Your task to perform on an android device: read, delete, or share a saved page in the chrome app Image 0: 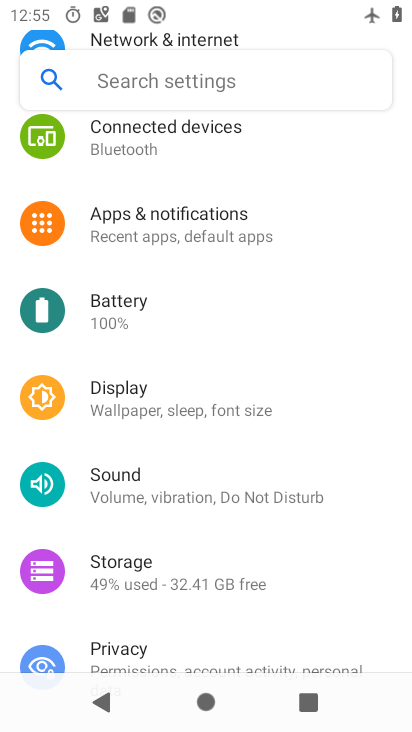
Step 0: press home button
Your task to perform on an android device: read, delete, or share a saved page in the chrome app Image 1: 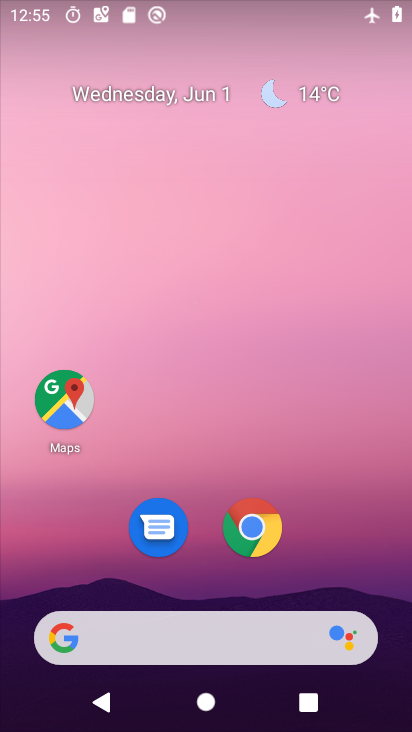
Step 1: click (256, 522)
Your task to perform on an android device: read, delete, or share a saved page in the chrome app Image 2: 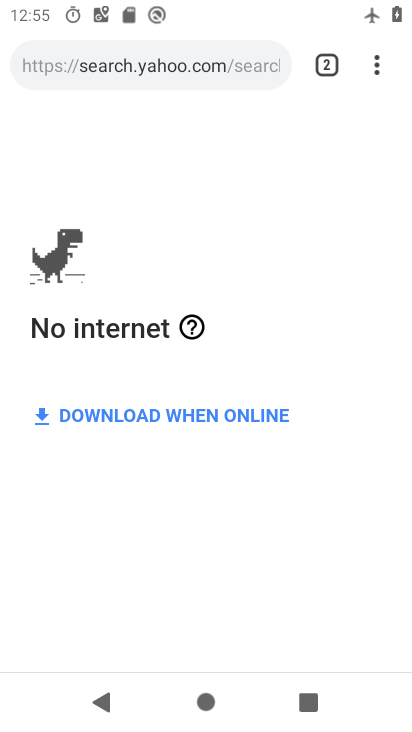
Step 2: click (380, 64)
Your task to perform on an android device: read, delete, or share a saved page in the chrome app Image 3: 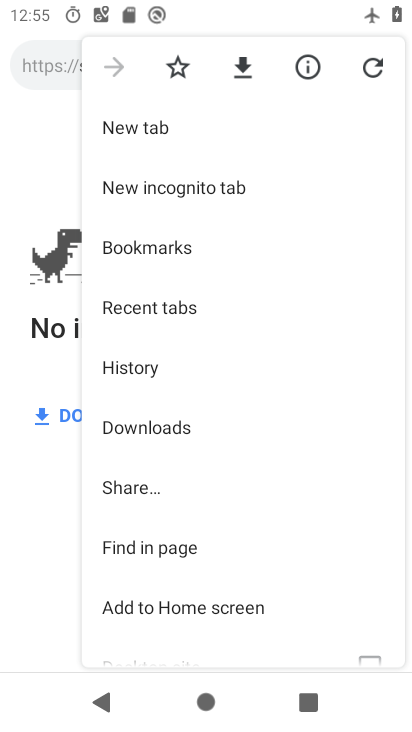
Step 3: click (129, 435)
Your task to perform on an android device: read, delete, or share a saved page in the chrome app Image 4: 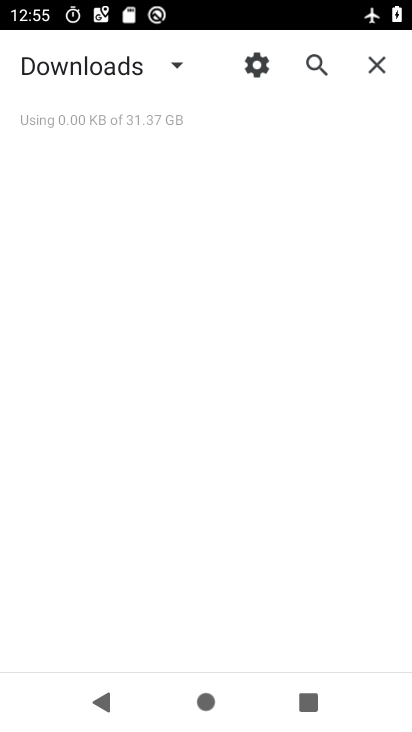
Step 4: click (179, 64)
Your task to perform on an android device: read, delete, or share a saved page in the chrome app Image 5: 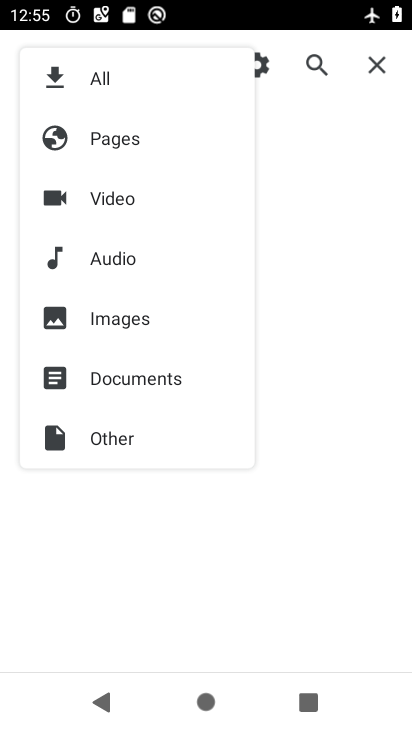
Step 5: click (118, 135)
Your task to perform on an android device: read, delete, or share a saved page in the chrome app Image 6: 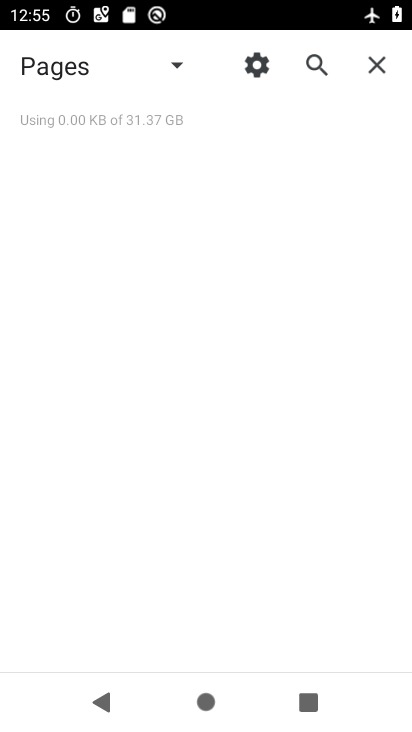
Step 6: task complete